Your task to perform on an android device: Open Youtube and go to the subscriptions tab Image 0: 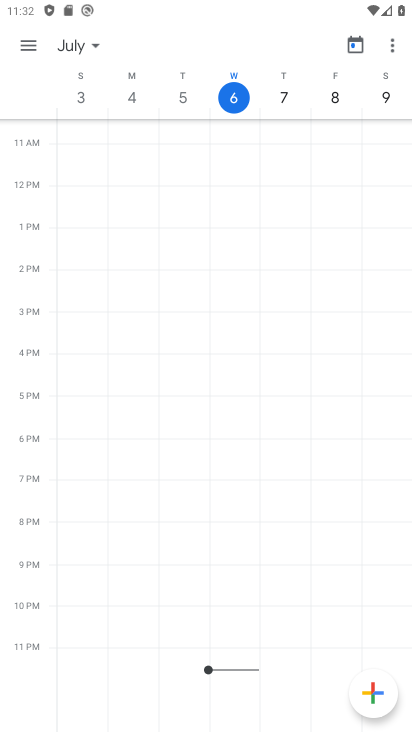
Step 0: press home button
Your task to perform on an android device: Open Youtube and go to the subscriptions tab Image 1: 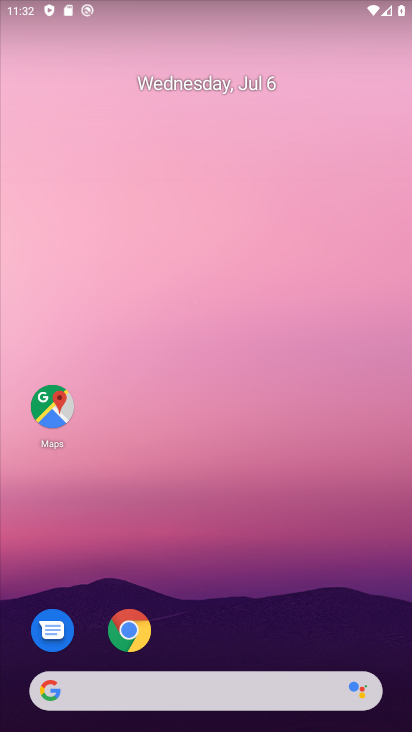
Step 1: drag from (321, 629) to (296, 234)
Your task to perform on an android device: Open Youtube and go to the subscriptions tab Image 2: 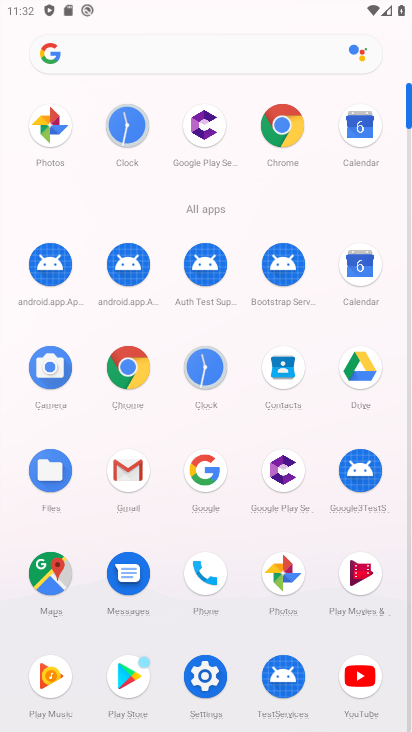
Step 2: click (369, 695)
Your task to perform on an android device: Open Youtube and go to the subscriptions tab Image 3: 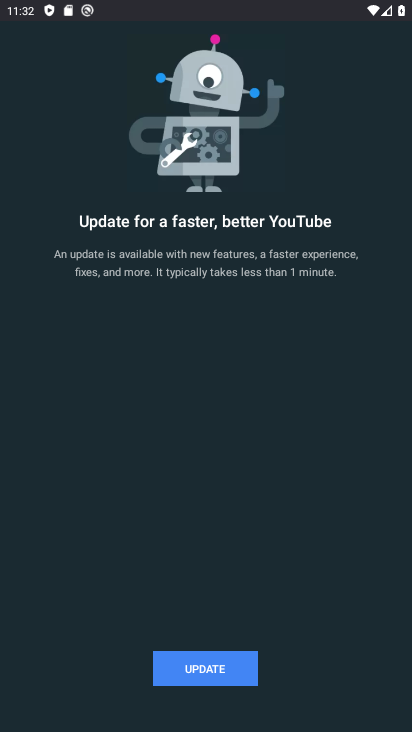
Step 3: click (236, 673)
Your task to perform on an android device: Open Youtube and go to the subscriptions tab Image 4: 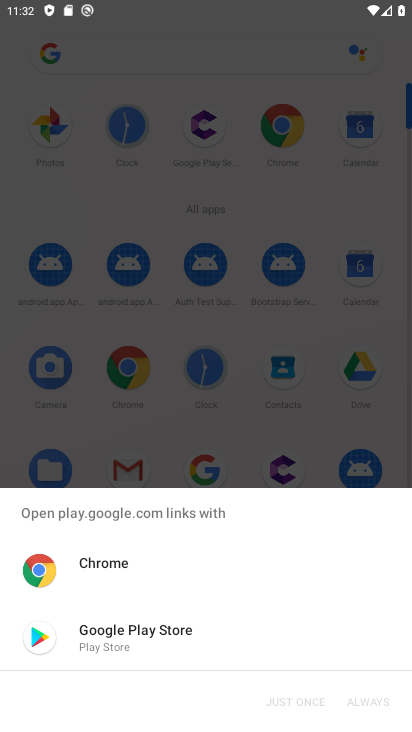
Step 4: click (230, 649)
Your task to perform on an android device: Open Youtube and go to the subscriptions tab Image 5: 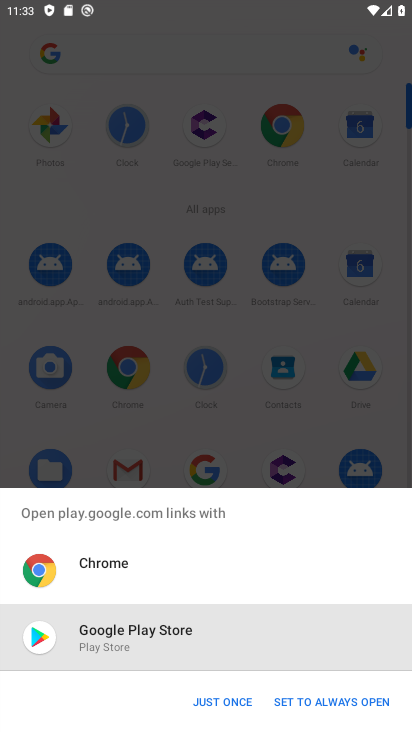
Step 5: click (224, 695)
Your task to perform on an android device: Open Youtube and go to the subscriptions tab Image 6: 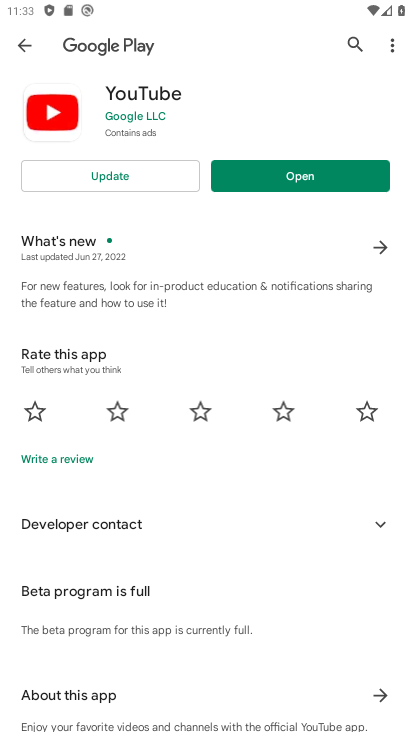
Step 6: click (113, 171)
Your task to perform on an android device: Open Youtube and go to the subscriptions tab Image 7: 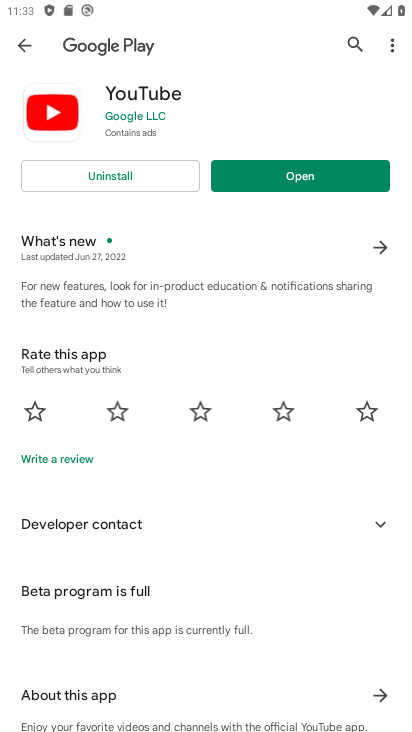
Step 7: click (334, 170)
Your task to perform on an android device: Open Youtube and go to the subscriptions tab Image 8: 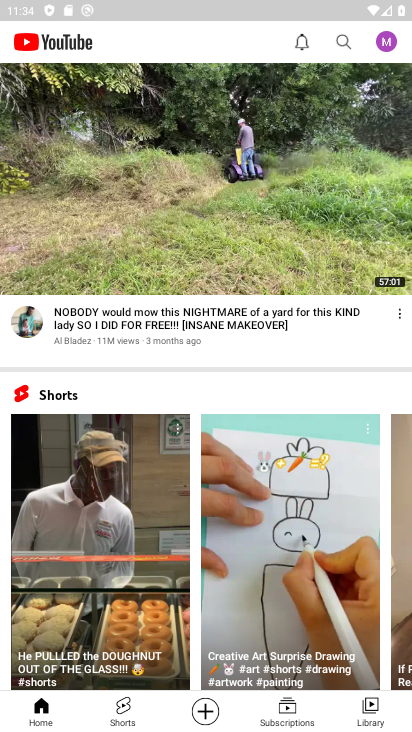
Step 8: click (307, 714)
Your task to perform on an android device: Open Youtube and go to the subscriptions tab Image 9: 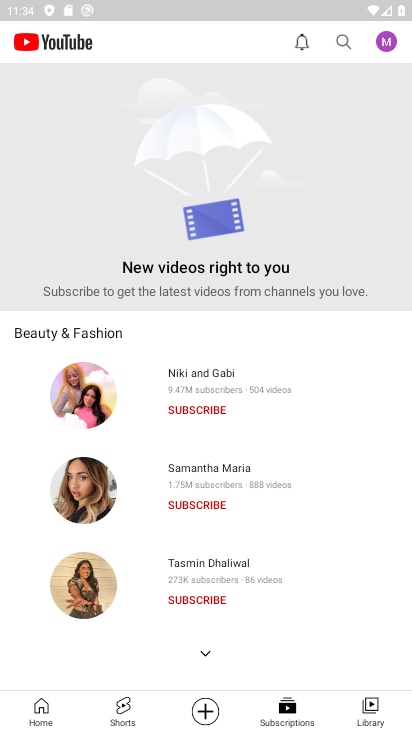
Step 9: task complete